Your task to perform on an android device: What's the weather today? Image 0: 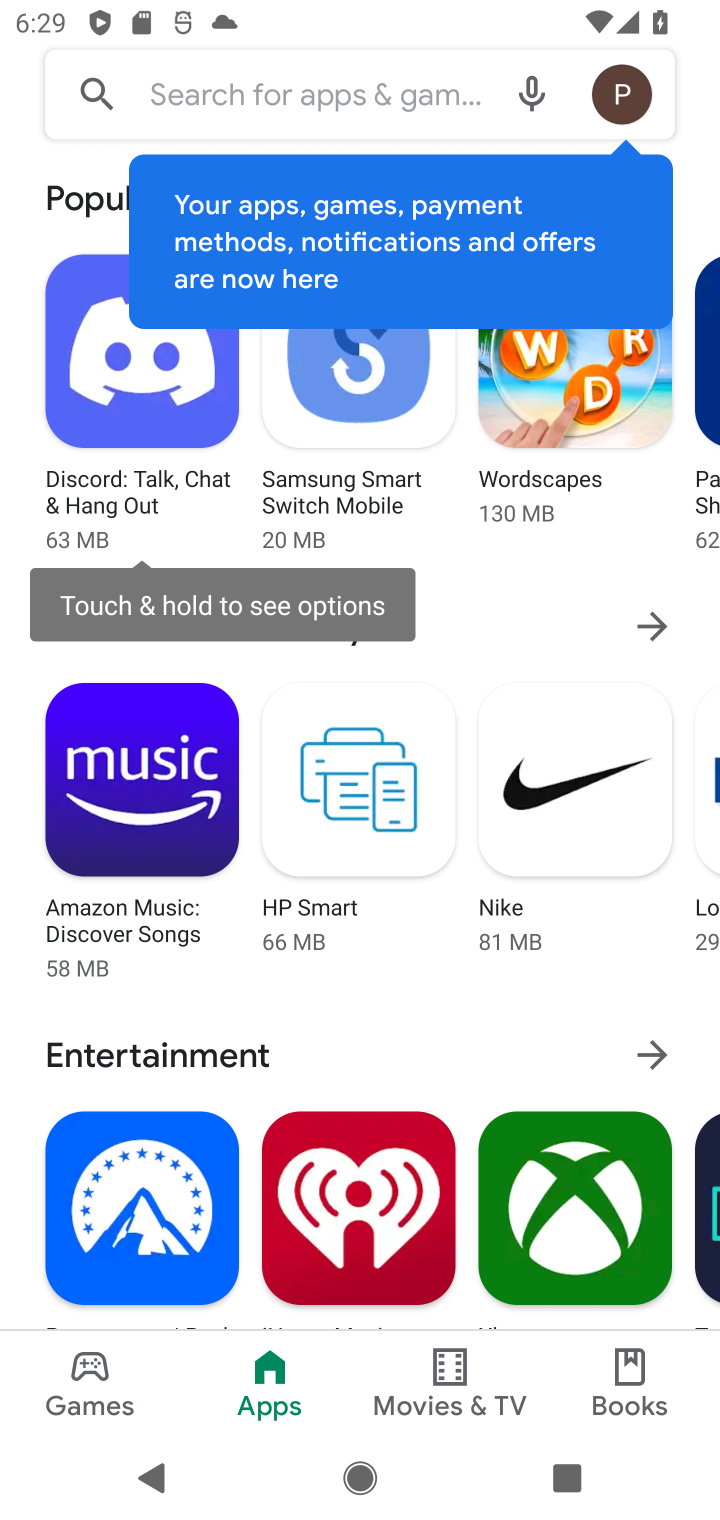
Step 0: press home button
Your task to perform on an android device: What's the weather today? Image 1: 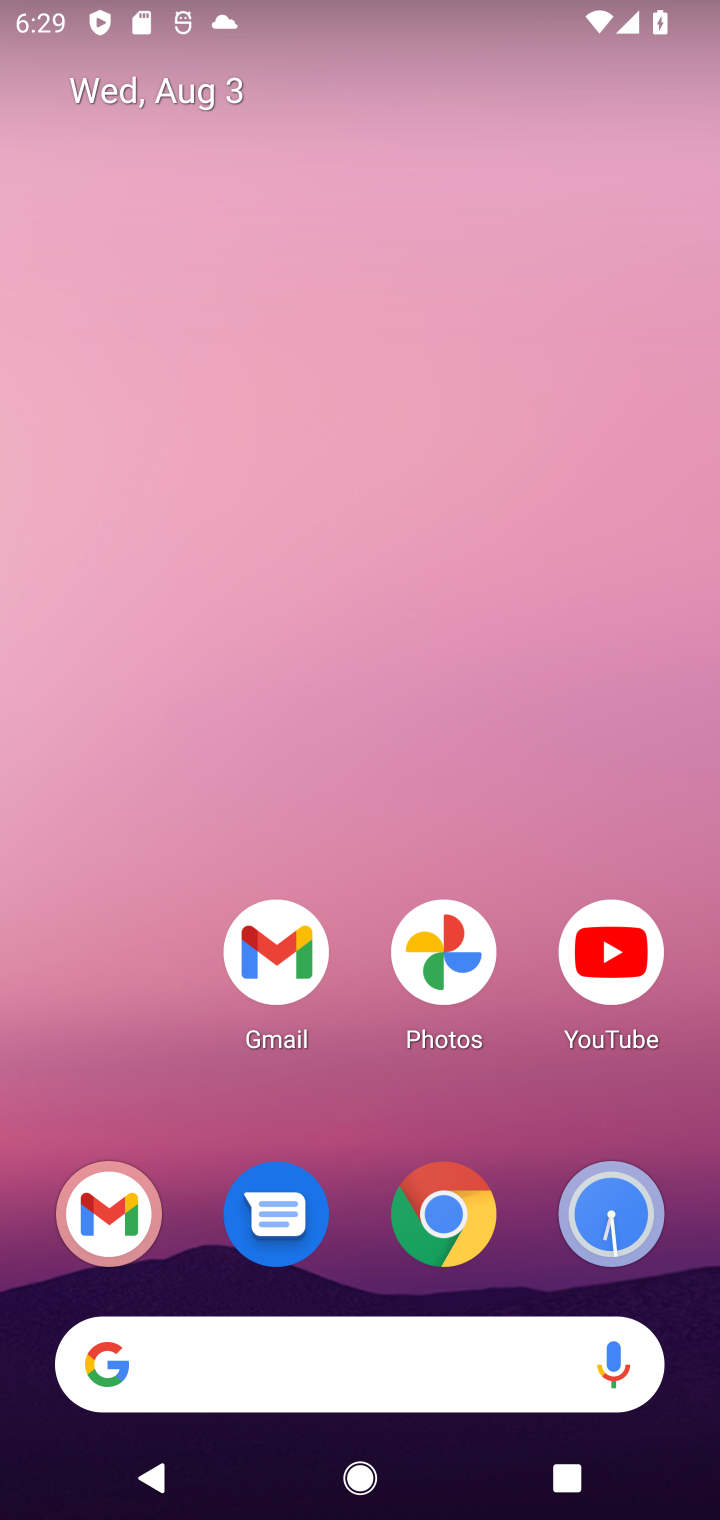
Step 1: drag from (2, 680) to (3, 72)
Your task to perform on an android device: What's the weather today? Image 2: 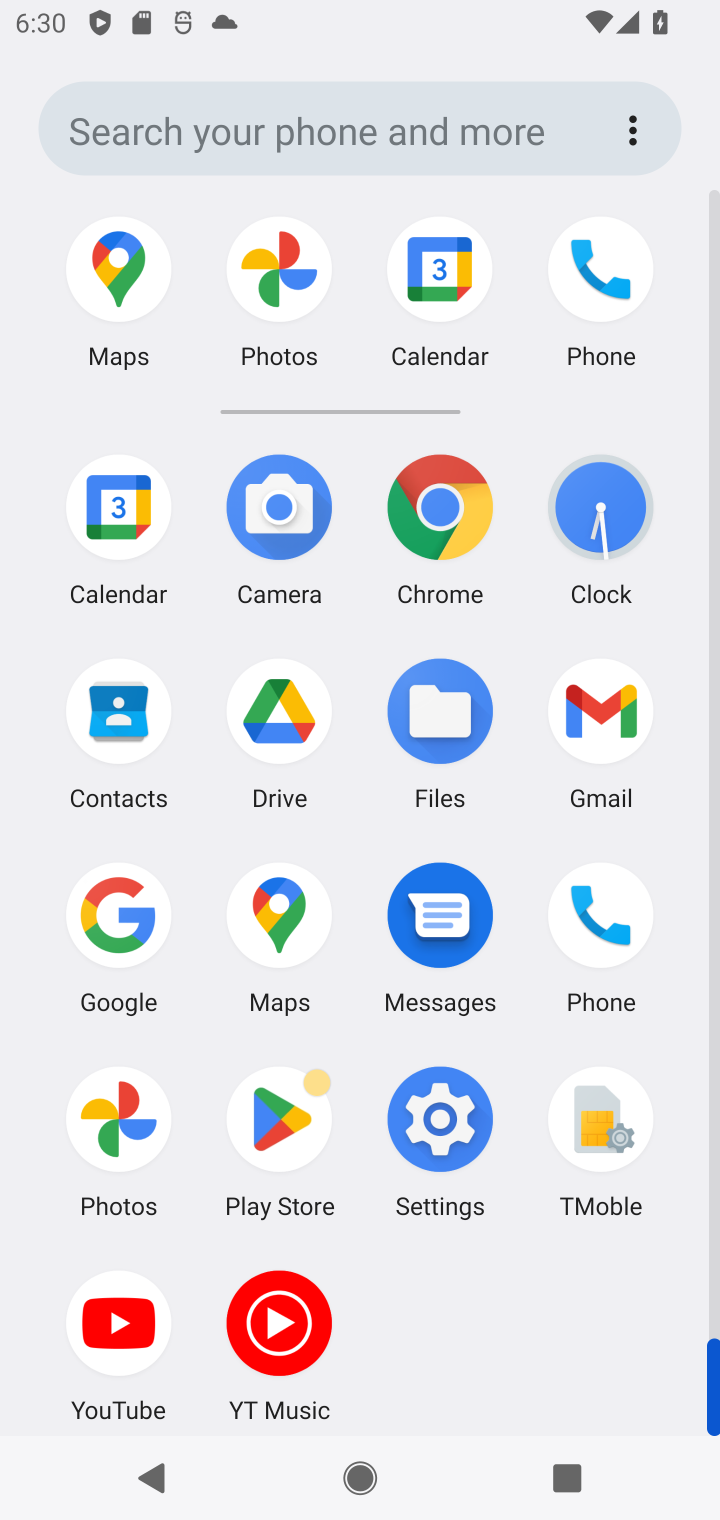
Step 2: click (135, 928)
Your task to perform on an android device: What's the weather today? Image 3: 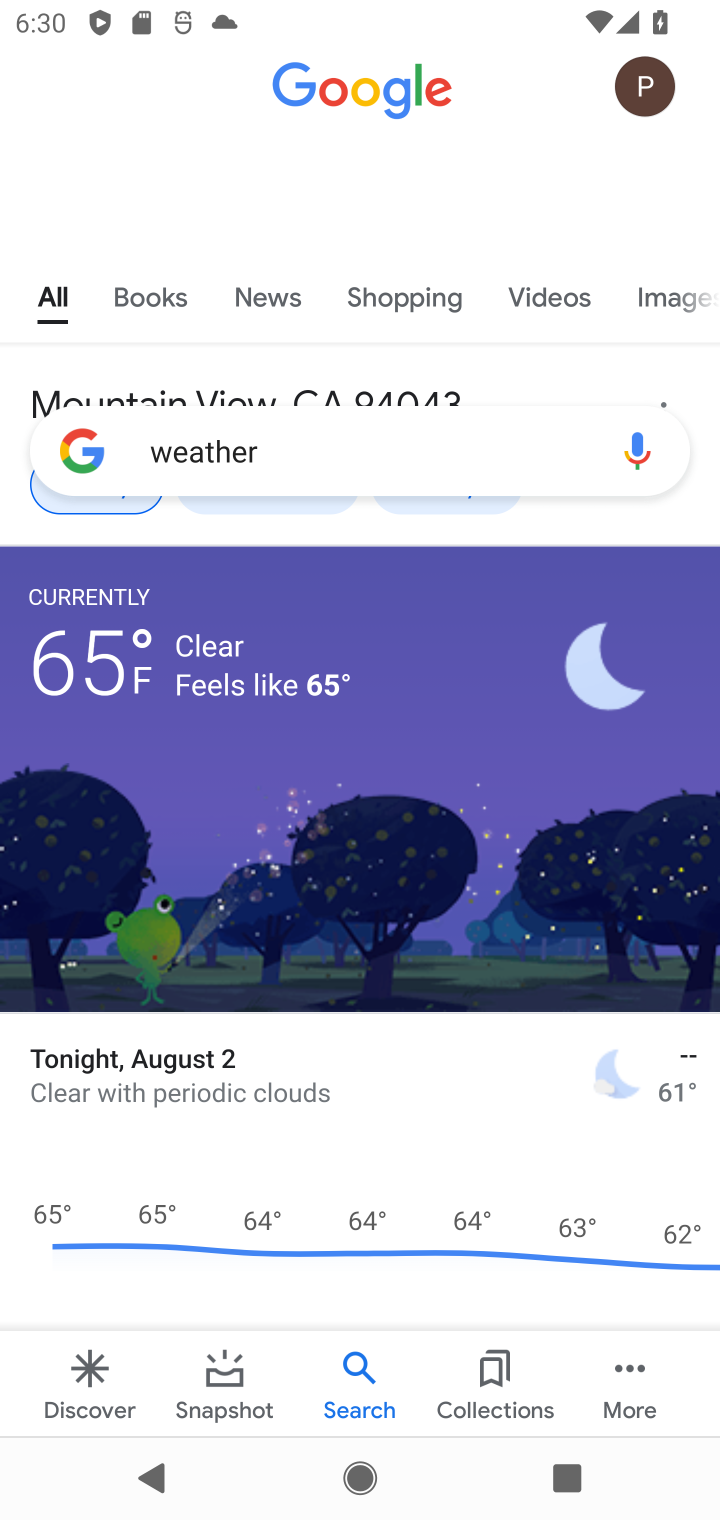
Step 3: task complete